Your task to perform on an android device: Open privacy settings Image 0: 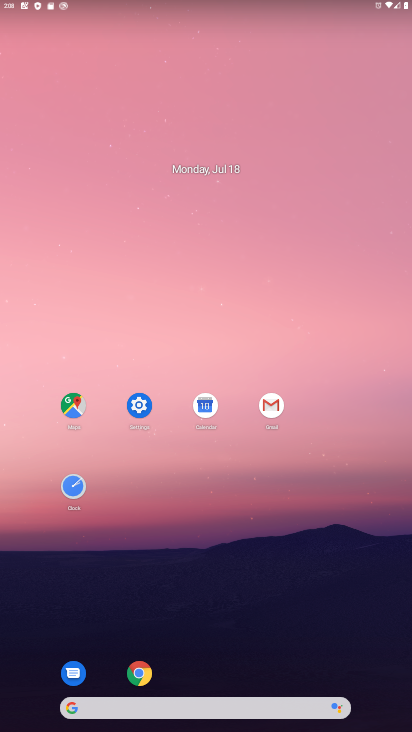
Step 0: click (142, 406)
Your task to perform on an android device: Open privacy settings Image 1: 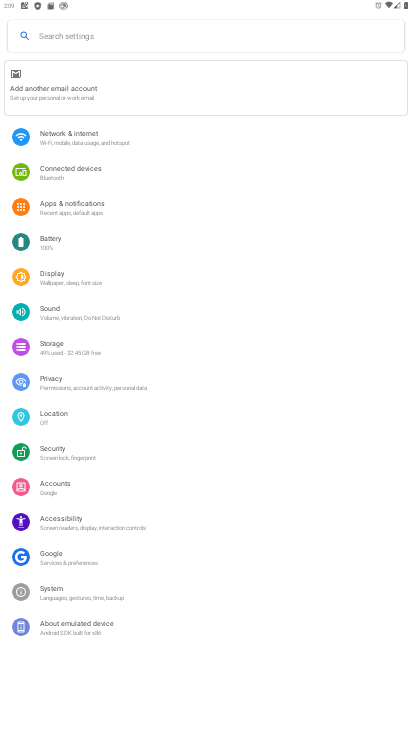
Step 1: click (42, 382)
Your task to perform on an android device: Open privacy settings Image 2: 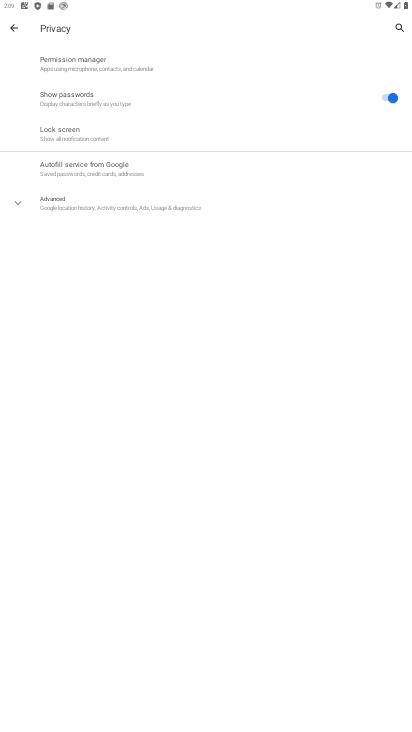
Step 2: click (20, 201)
Your task to perform on an android device: Open privacy settings Image 3: 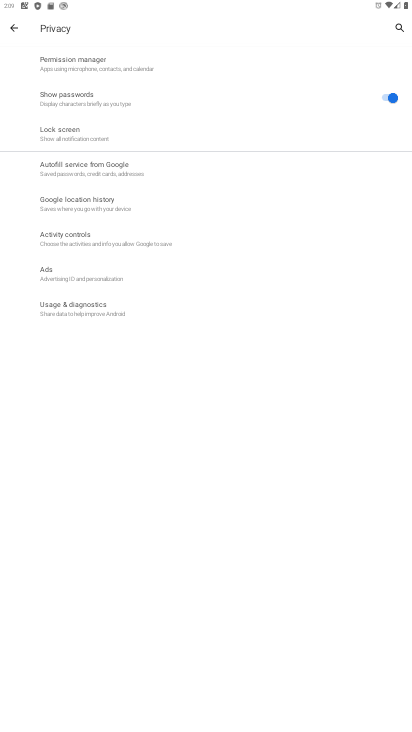
Step 3: task complete